Your task to perform on an android device: add a label to a message in the gmail app Image 0: 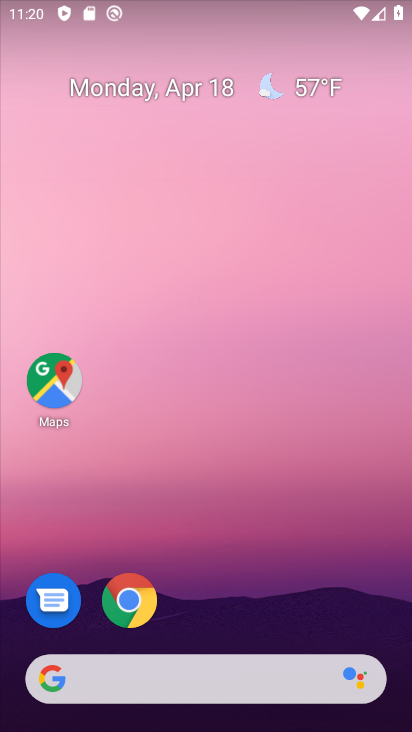
Step 0: drag from (266, 569) to (326, 4)
Your task to perform on an android device: add a label to a message in the gmail app Image 1: 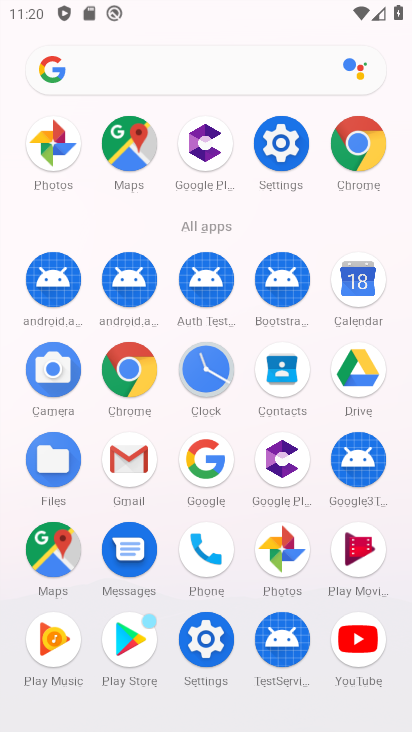
Step 1: click (130, 453)
Your task to perform on an android device: add a label to a message in the gmail app Image 2: 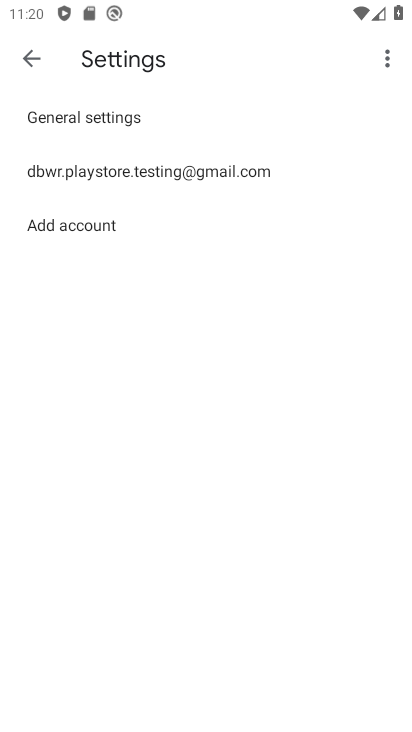
Step 2: press home button
Your task to perform on an android device: add a label to a message in the gmail app Image 3: 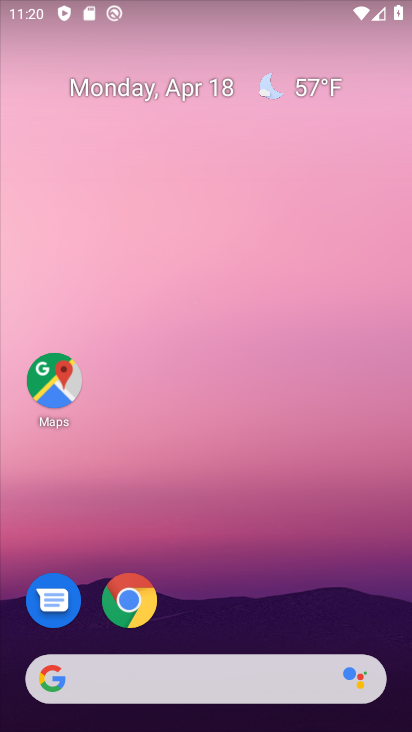
Step 3: drag from (212, 594) to (286, 17)
Your task to perform on an android device: add a label to a message in the gmail app Image 4: 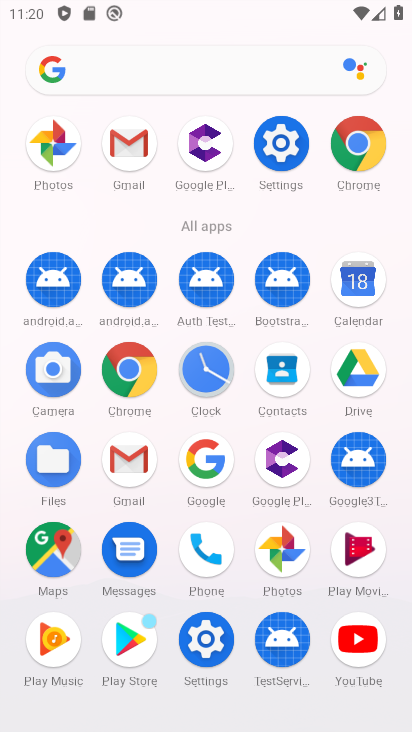
Step 4: click (122, 138)
Your task to perform on an android device: add a label to a message in the gmail app Image 5: 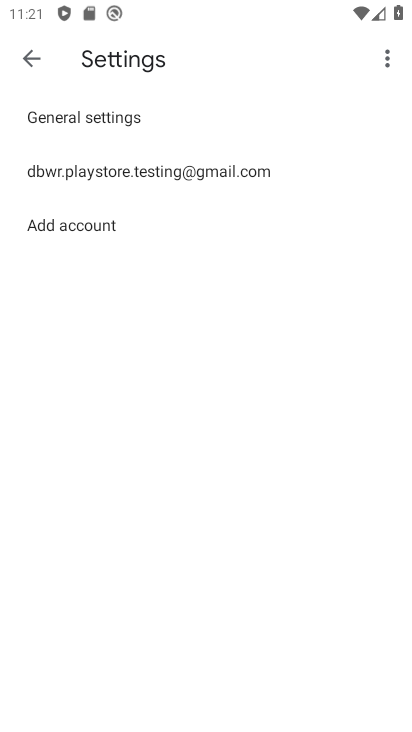
Step 5: click (124, 171)
Your task to perform on an android device: add a label to a message in the gmail app Image 6: 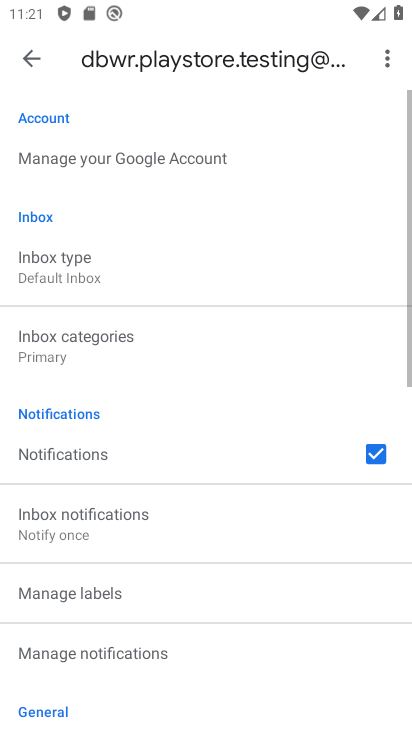
Step 6: click (30, 68)
Your task to perform on an android device: add a label to a message in the gmail app Image 7: 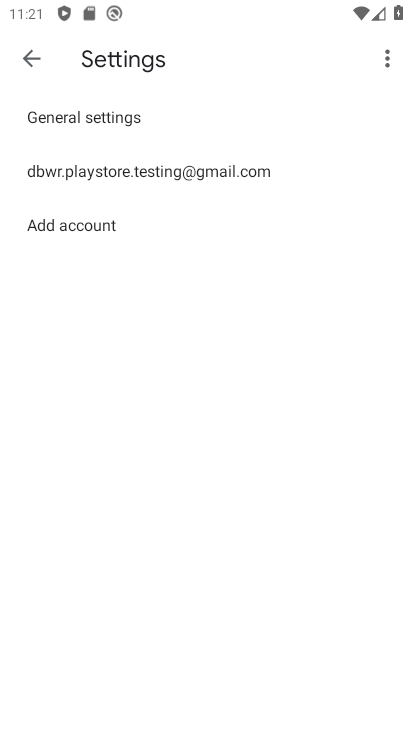
Step 7: click (85, 164)
Your task to perform on an android device: add a label to a message in the gmail app Image 8: 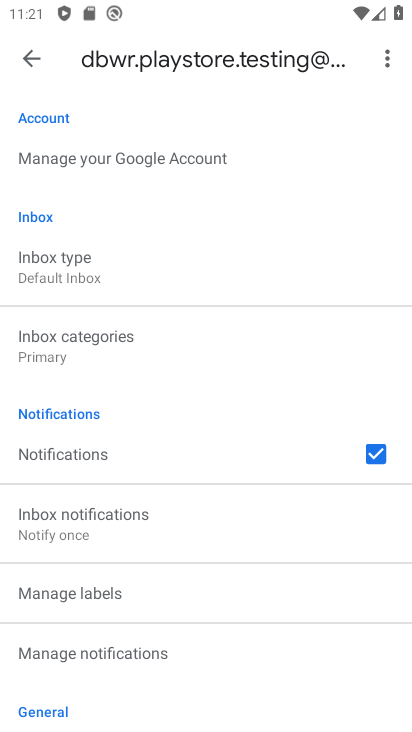
Step 8: click (31, 55)
Your task to perform on an android device: add a label to a message in the gmail app Image 9: 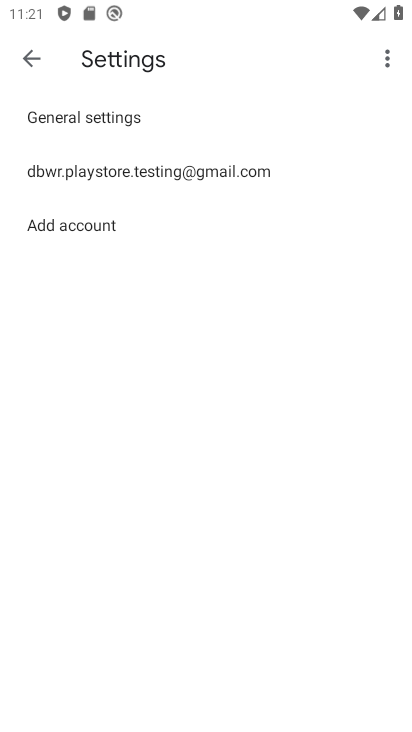
Step 9: click (31, 55)
Your task to perform on an android device: add a label to a message in the gmail app Image 10: 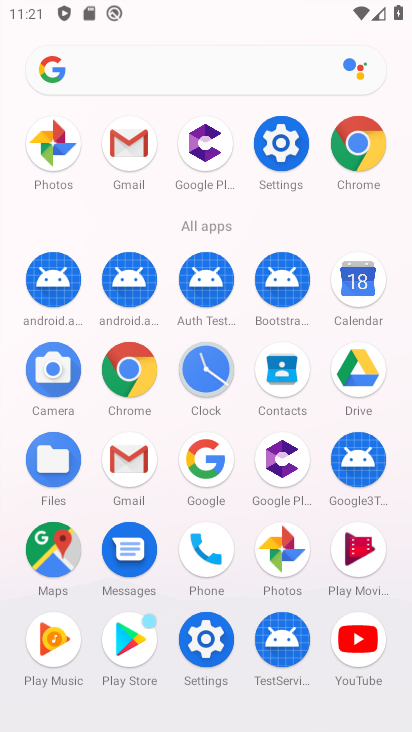
Step 10: click (142, 150)
Your task to perform on an android device: add a label to a message in the gmail app Image 11: 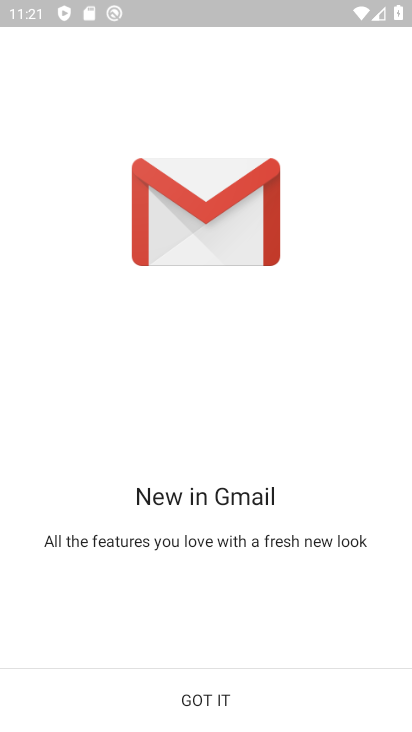
Step 11: click (200, 677)
Your task to perform on an android device: add a label to a message in the gmail app Image 12: 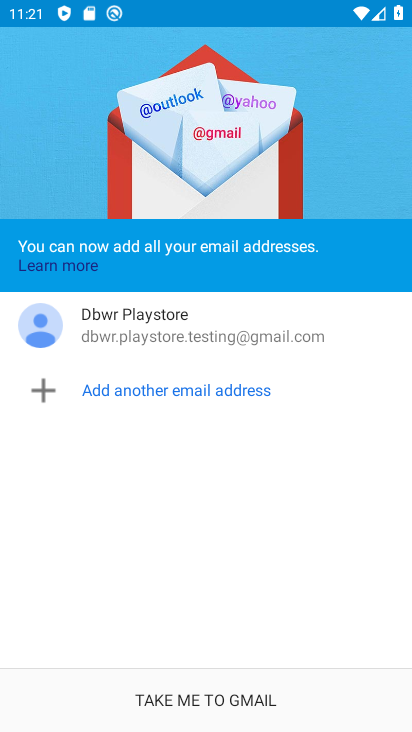
Step 12: click (208, 689)
Your task to perform on an android device: add a label to a message in the gmail app Image 13: 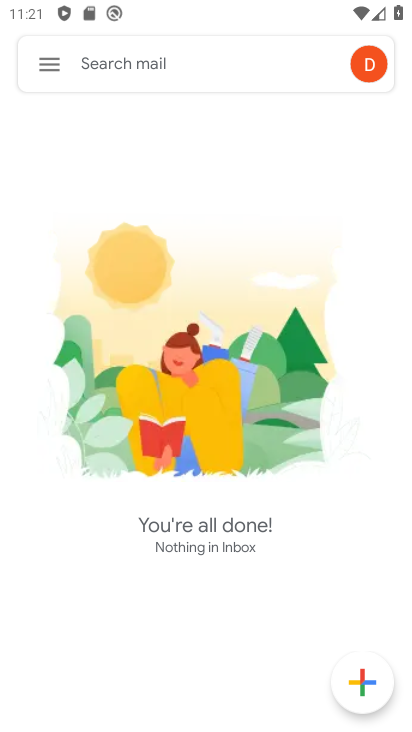
Step 13: click (40, 65)
Your task to perform on an android device: add a label to a message in the gmail app Image 14: 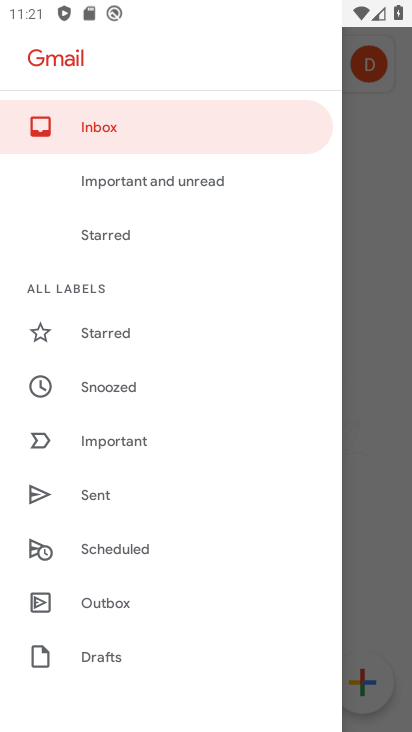
Step 14: drag from (122, 657) to (221, 198)
Your task to perform on an android device: add a label to a message in the gmail app Image 15: 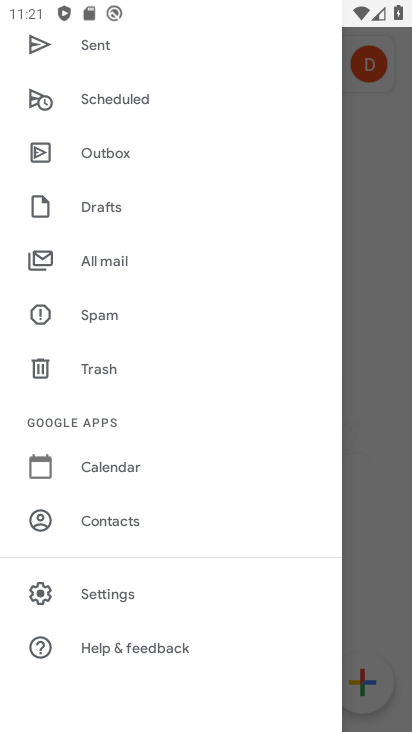
Step 15: click (105, 258)
Your task to perform on an android device: add a label to a message in the gmail app Image 16: 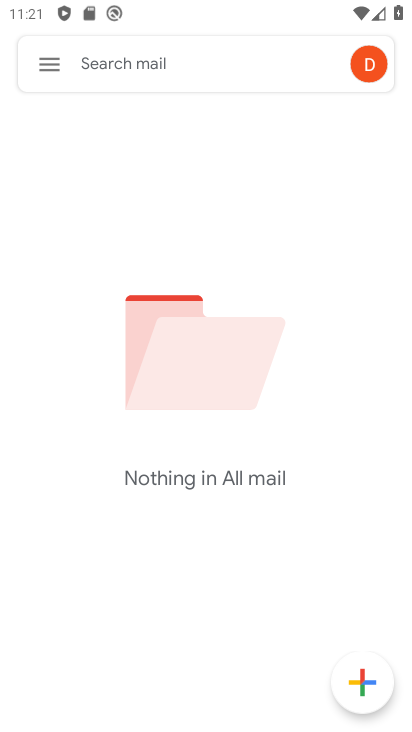
Step 16: task complete